Your task to perform on an android device: Go to calendar. Show me events next week Image 0: 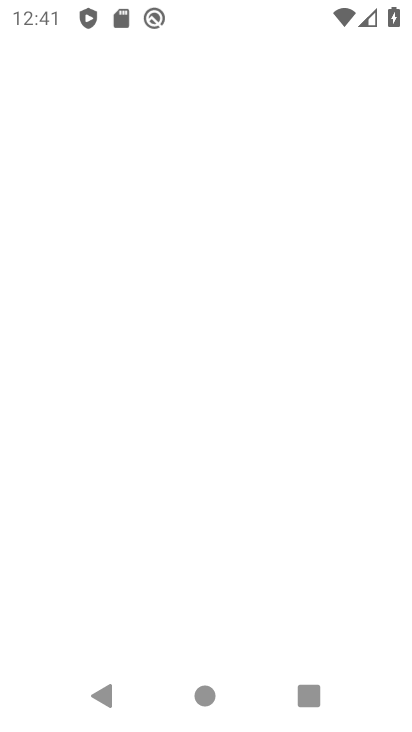
Step 0: press back button
Your task to perform on an android device: Go to calendar. Show me events next week Image 1: 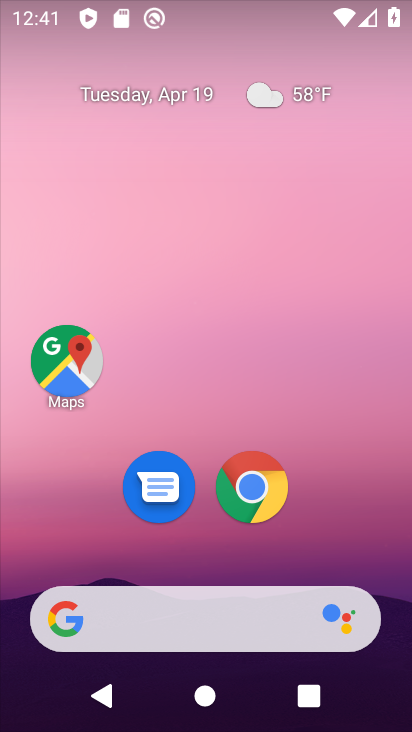
Step 1: drag from (200, 721) to (205, 89)
Your task to perform on an android device: Go to calendar. Show me events next week Image 2: 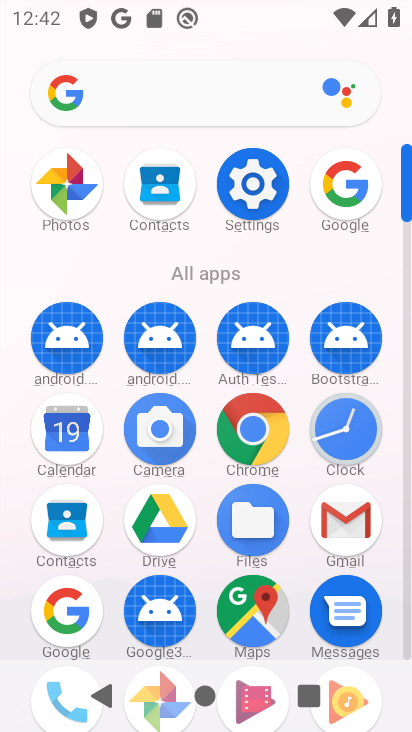
Step 2: click (67, 434)
Your task to perform on an android device: Go to calendar. Show me events next week Image 3: 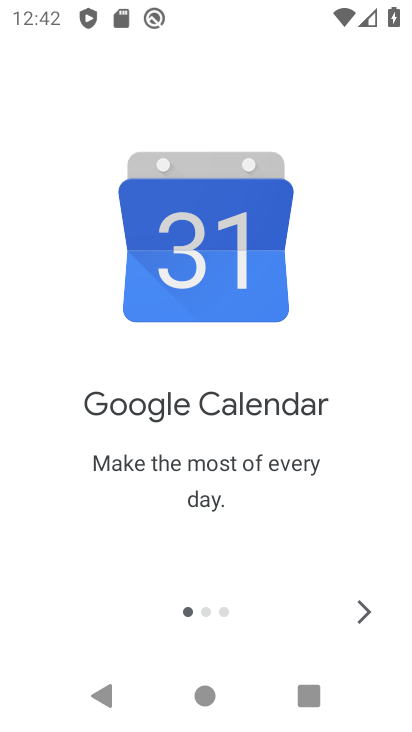
Step 3: click (360, 608)
Your task to perform on an android device: Go to calendar. Show me events next week Image 4: 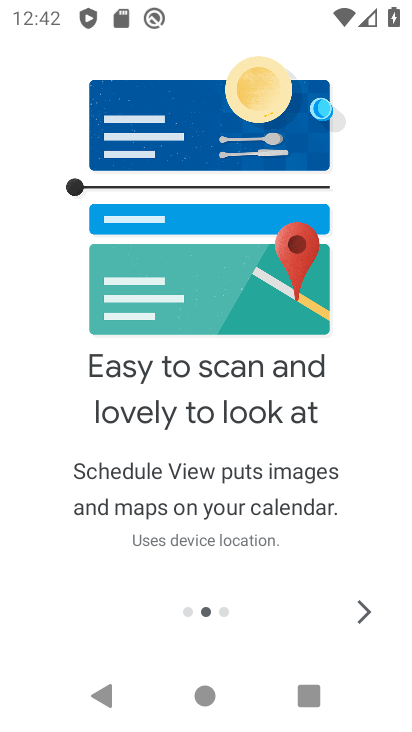
Step 4: click (366, 608)
Your task to perform on an android device: Go to calendar. Show me events next week Image 5: 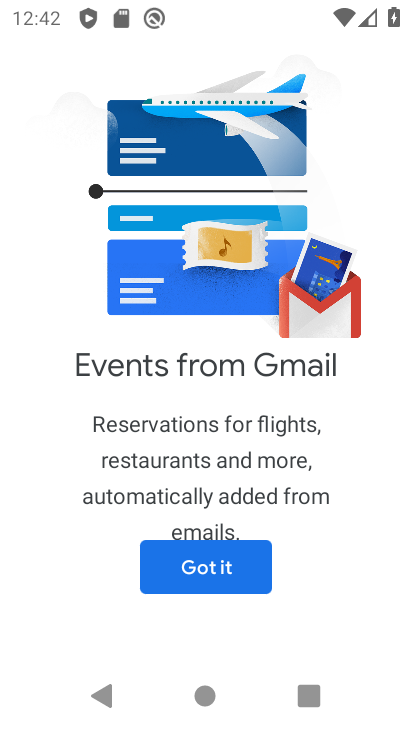
Step 5: click (225, 566)
Your task to perform on an android device: Go to calendar. Show me events next week Image 6: 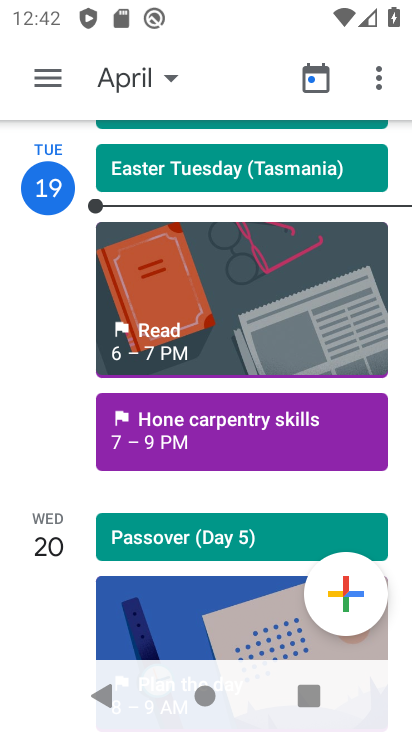
Step 6: click (109, 80)
Your task to perform on an android device: Go to calendar. Show me events next week Image 7: 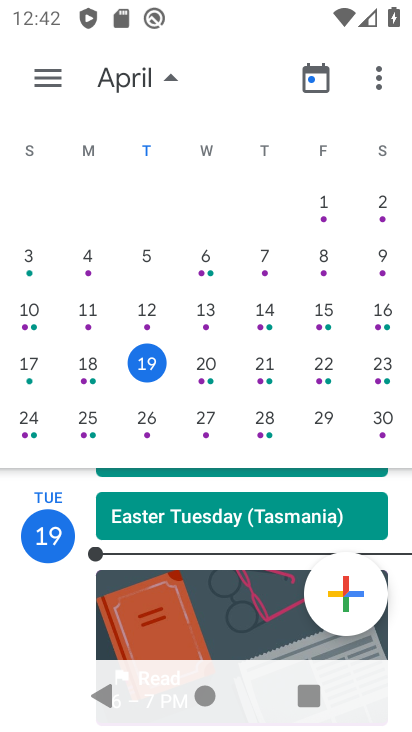
Step 7: click (91, 418)
Your task to perform on an android device: Go to calendar. Show me events next week Image 8: 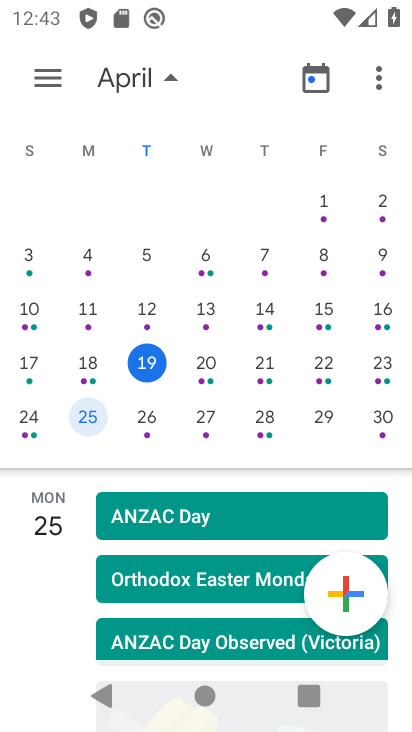
Step 8: click (89, 416)
Your task to perform on an android device: Go to calendar. Show me events next week Image 9: 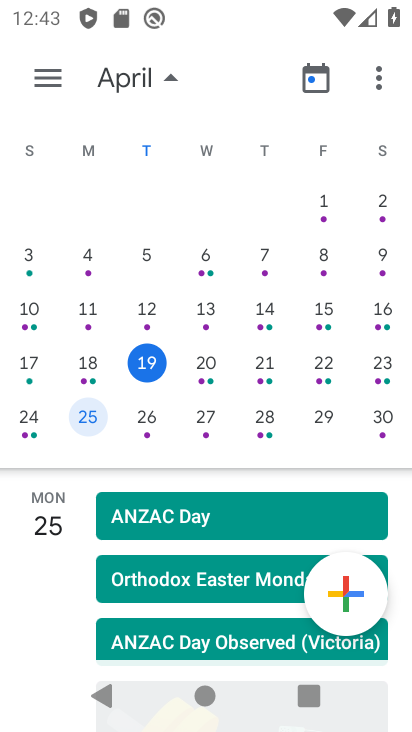
Step 9: click (89, 416)
Your task to perform on an android device: Go to calendar. Show me events next week Image 10: 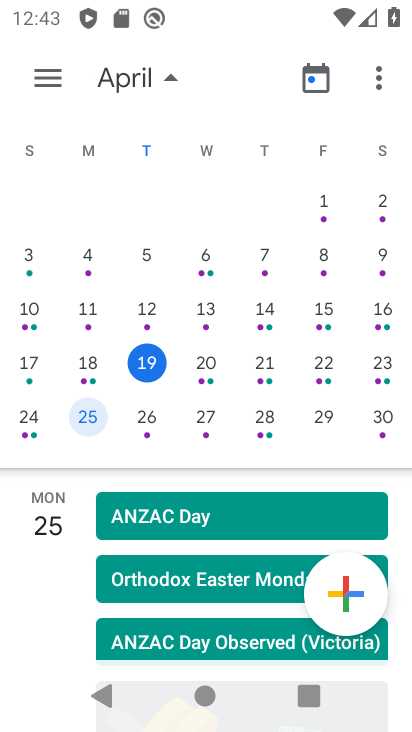
Step 10: click (126, 78)
Your task to perform on an android device: Go to calendar. Show me events next week Image 11: 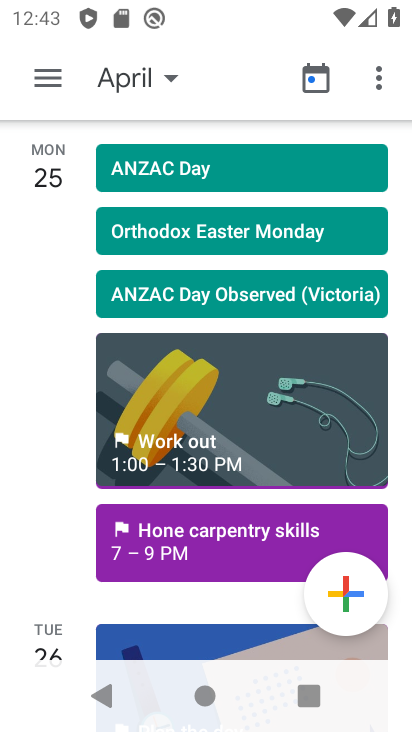
Step 11: task complete